Your task to perform on an android device: Open calendar and show me the third week of next month Image 0: 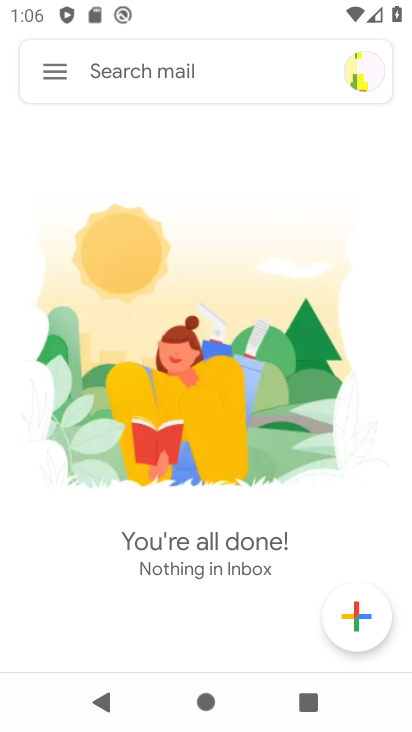
Step 0: press home button
Your task to perform on an android device: Open calendar and show me the third week of next month Image 1: 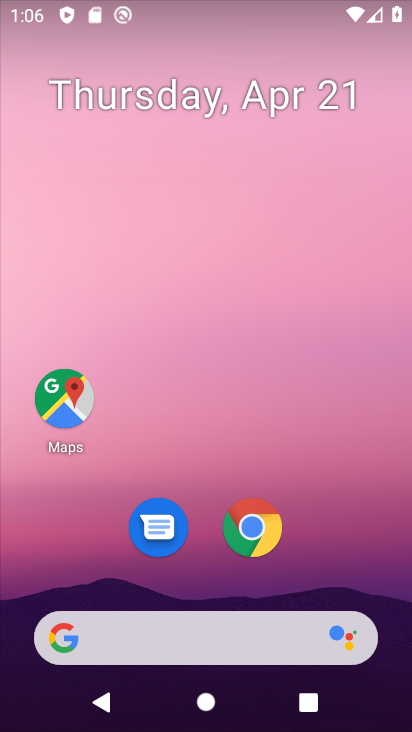
Step 1: drag from (345, 538) to (358, 91)
Your task to perform on an android device: Open calendar and show me the third week of next month Image 2: 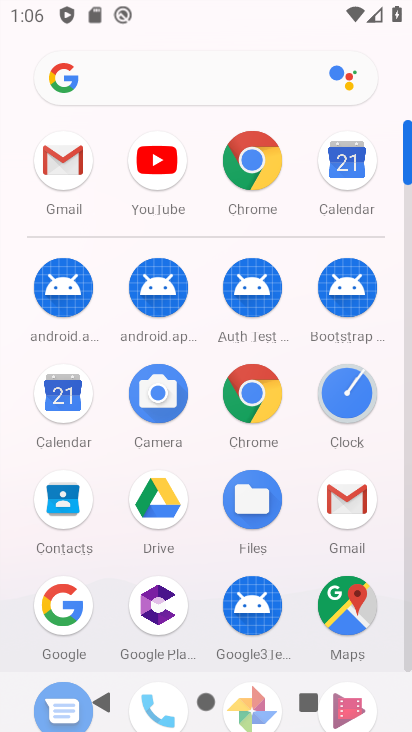
Step 2: click (61, 409)
Your task to perform on an android device: Open calendar and show me the third week of next month Image 3: 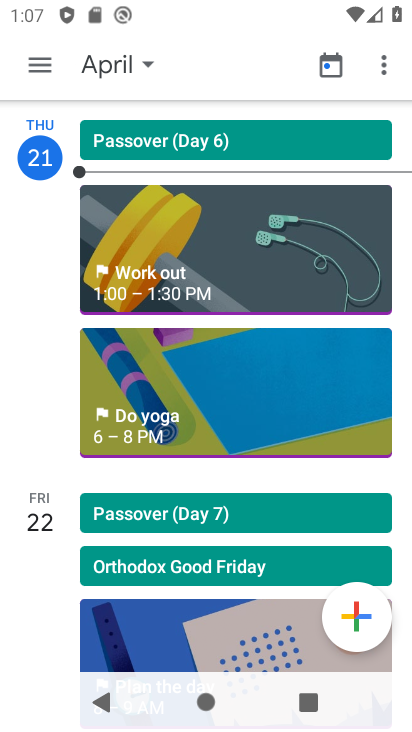
Step 3: click (143, 56)
Your task to perform on an android device: Open calendar and show me the third week of next month Image 4: 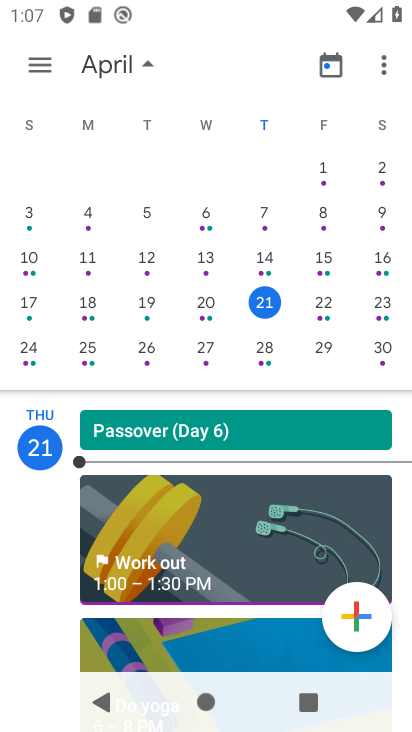
Step 4: drag from (383, 282) to (12, 267)
Your task to perform on an android device: Open calendar and show me the third week of next month Image 5: 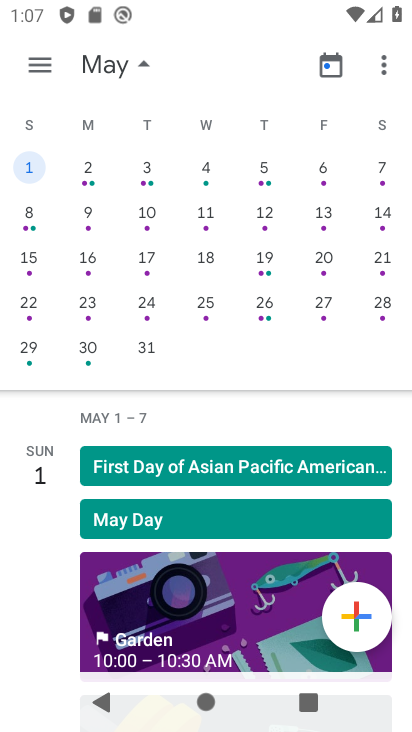
Step 5: click (144, 263)
Your task to perform on an android device: Open calendar and show me the third week of next month Image 6: 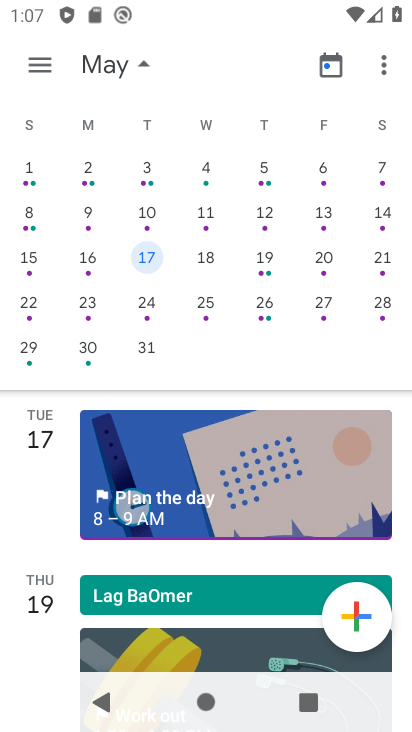
Step 6: task complete